Your task to perform on an android device: Go to ESPN.com Image 0: 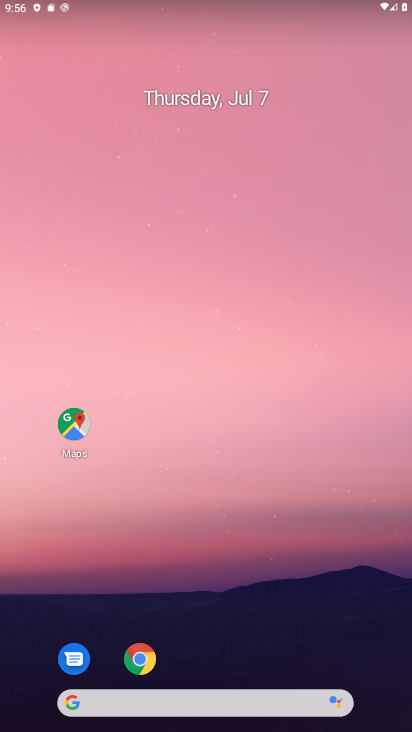
Step 0: click (144, 668)
Your task to perform on an android device: Go to ESPN.com Image 1: 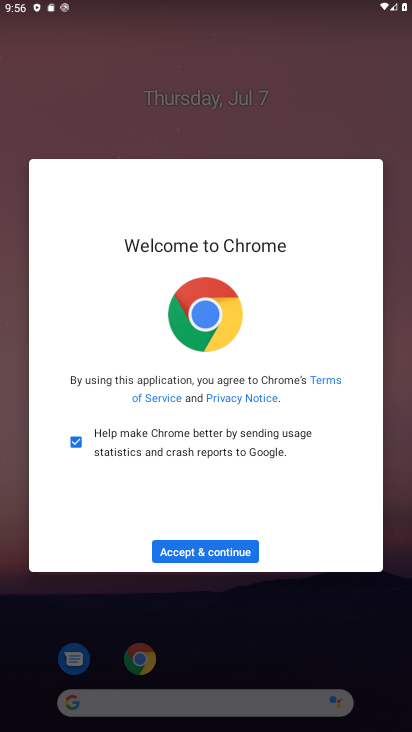
Step 1: click (196, 547)
Your task to perform on an android device: Go to ESPN.com Image 2: 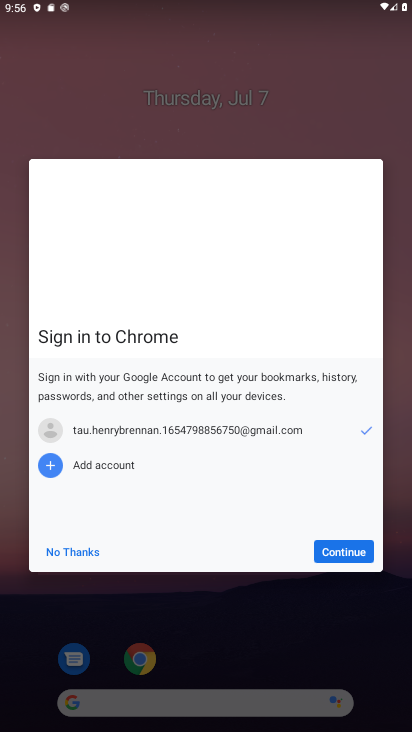
Step 2: click (343, 553)
Your task to perform on an android device: Go to ESPN.com Image 3: 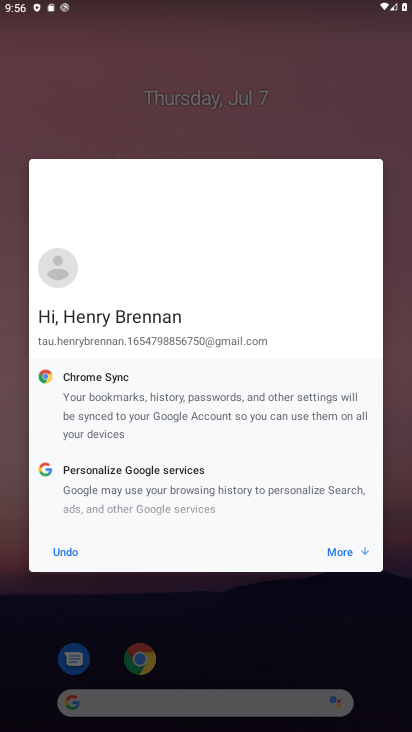
Step 3: click (343, 553)
Your task to perform on an android device: Go to ESPN.com Image 4: 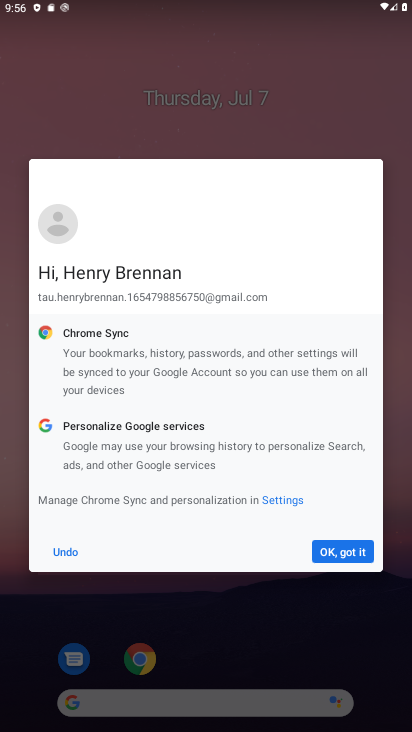
Step 4: click (343, 553)
Your task to perform on an android device: Go to ESPN.com Image 5: 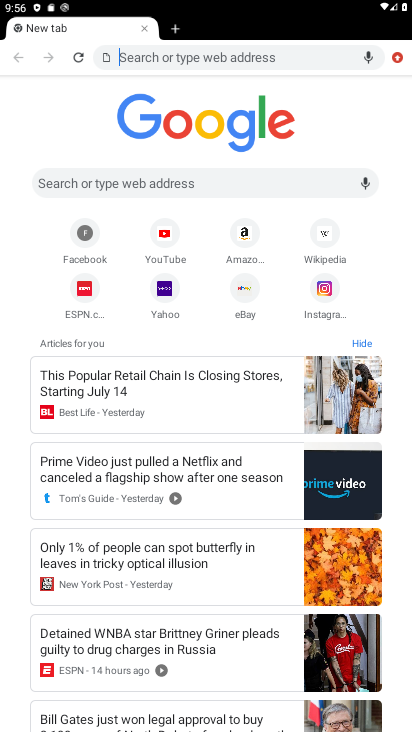
Step 5: click (87, 282)
Your task to perform on an android device: Go to ESPN.com Image 6: 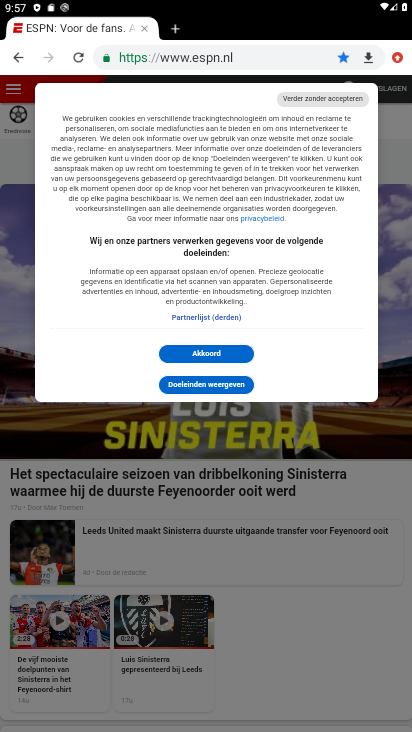
Step 6: task complete